Your task to perform on an android device: What are the best selling refrigerators at Lowes? Image 0: 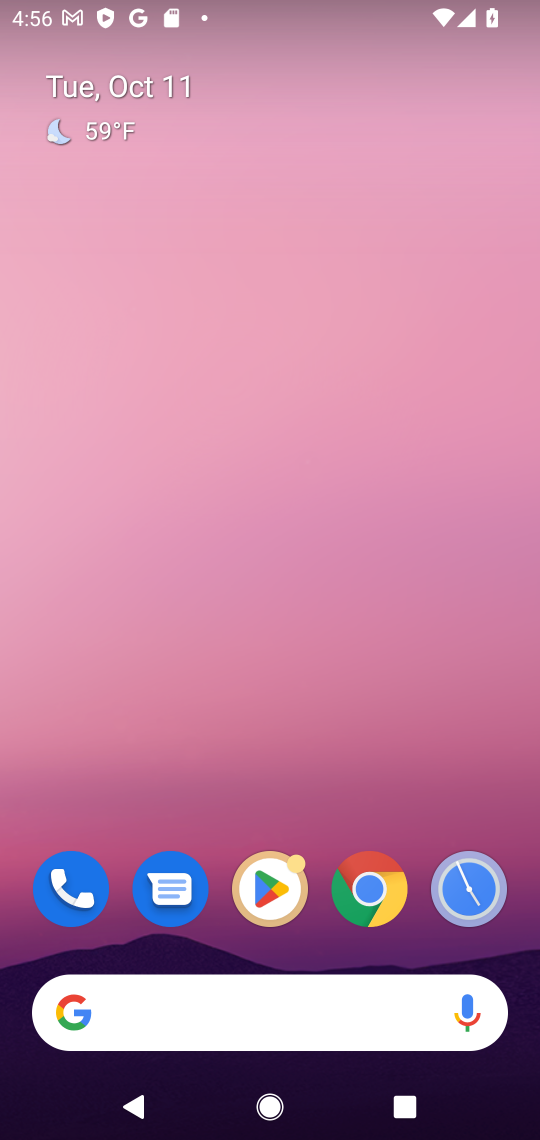
Step 0: drag from (226, 813) to (331, 202)
Your task to perform on an android device: What are the best selling refrigerators at Lowes? Image 1: 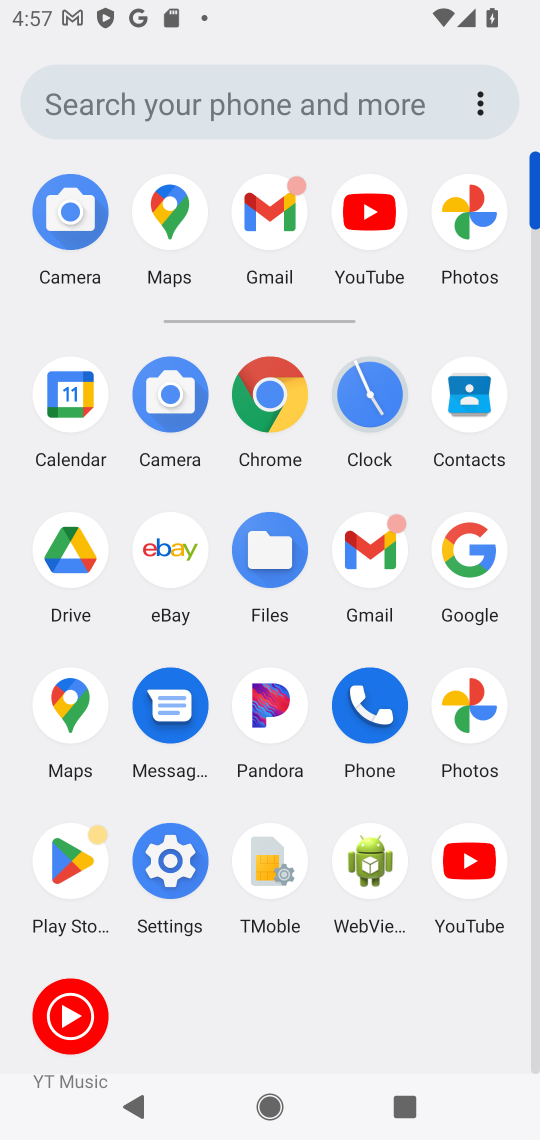
Step 1: click (479, 559)
Your task to perform on an android device: What are the best selling refrigerators at Lowes? Image 2: 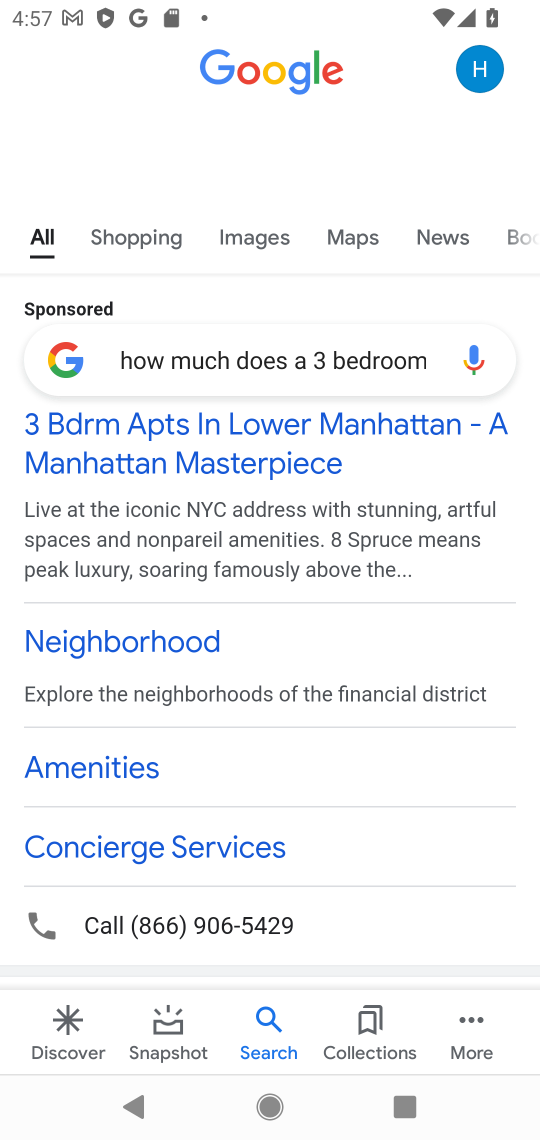
Step 2: click (334, 352)
Your task to perform on an android device: What are the best selling refrigerators at Lowes? Image 3: 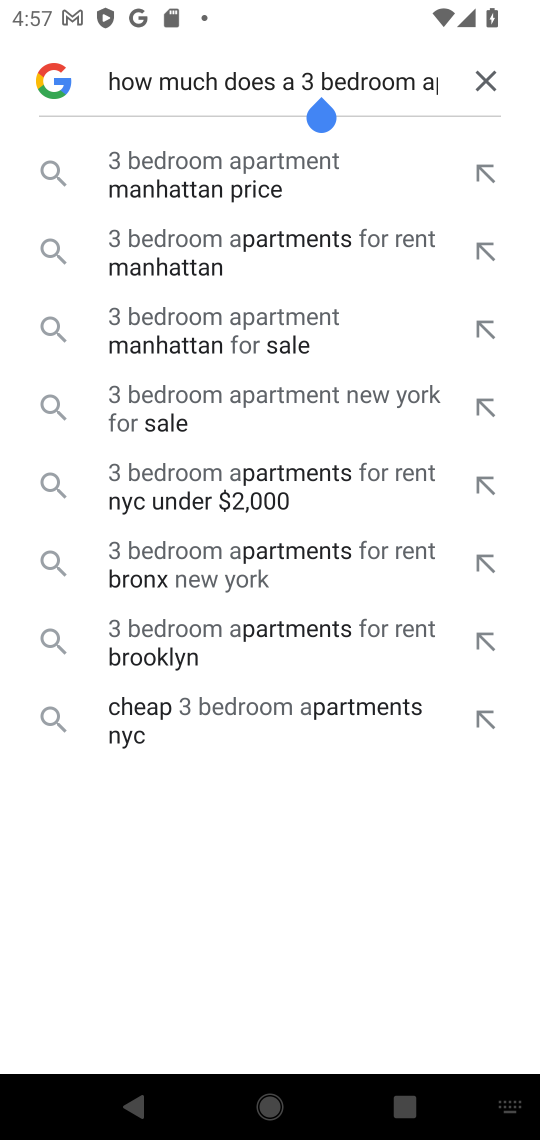
Step 3: click (493, 69)
Your task to perform on an android device: What are the best selling refrigerators at Lowes? Image 4: 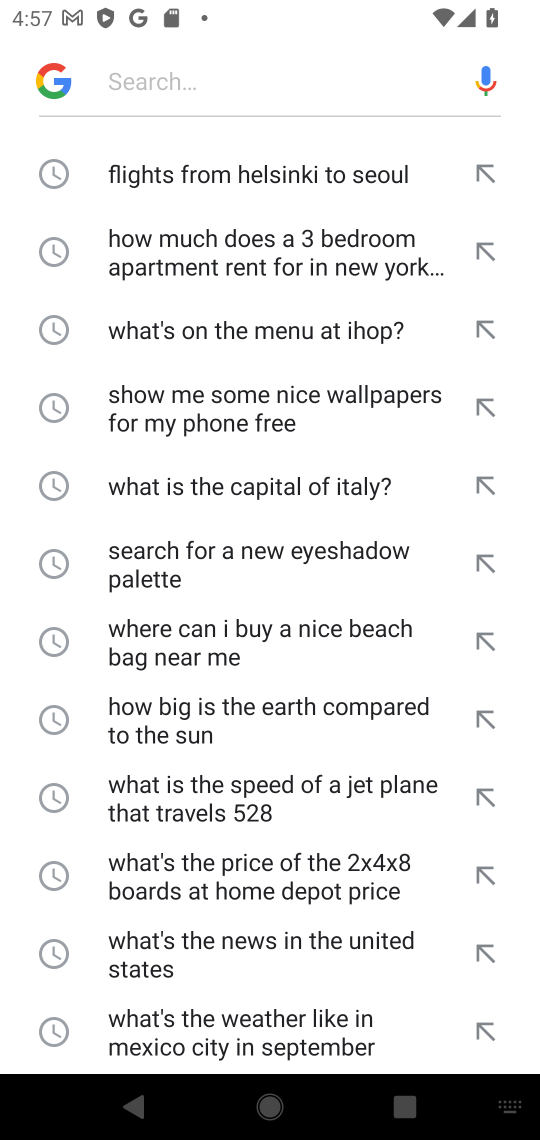
Step 4: click (263, 56)
Your task to perform on an android device: What are the best selling refrigerators at Lowes? Image 5: 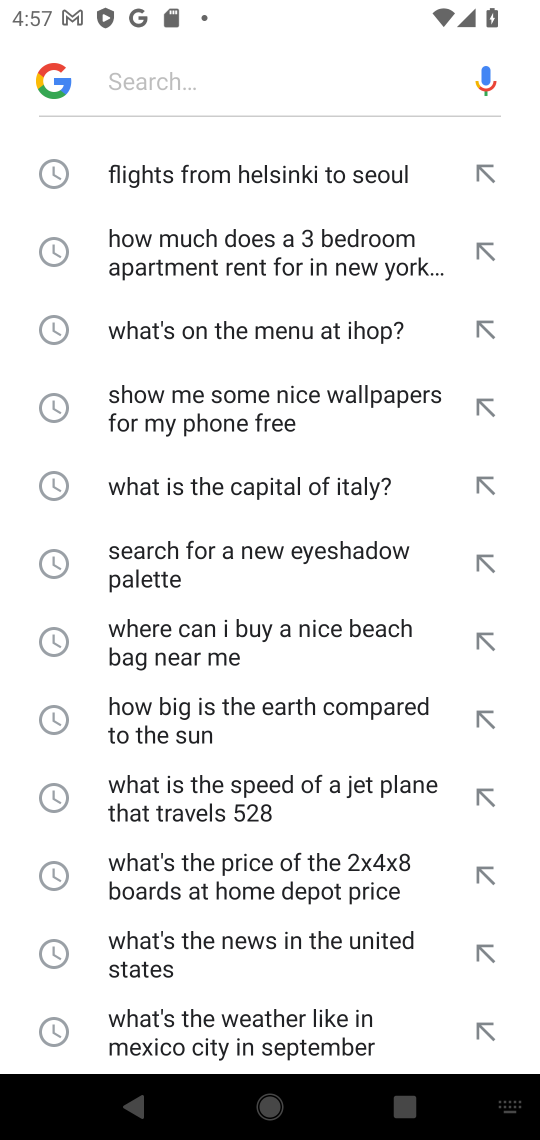
Step 5: type "What are the best selling refrigerators at Lowes "
Your task to perform on an android device: What are the best selling refrigerators at Lowes? Image 6: 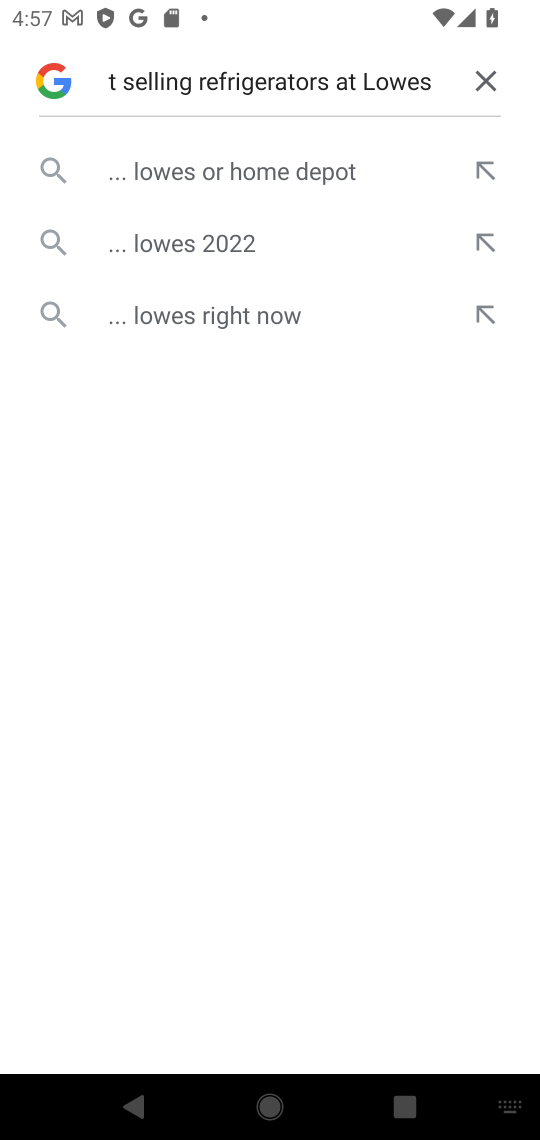
Step 6: click (230, 169)
Your task to perform on an android device: What are the best selling refrigerators at Lowes? Image 7: 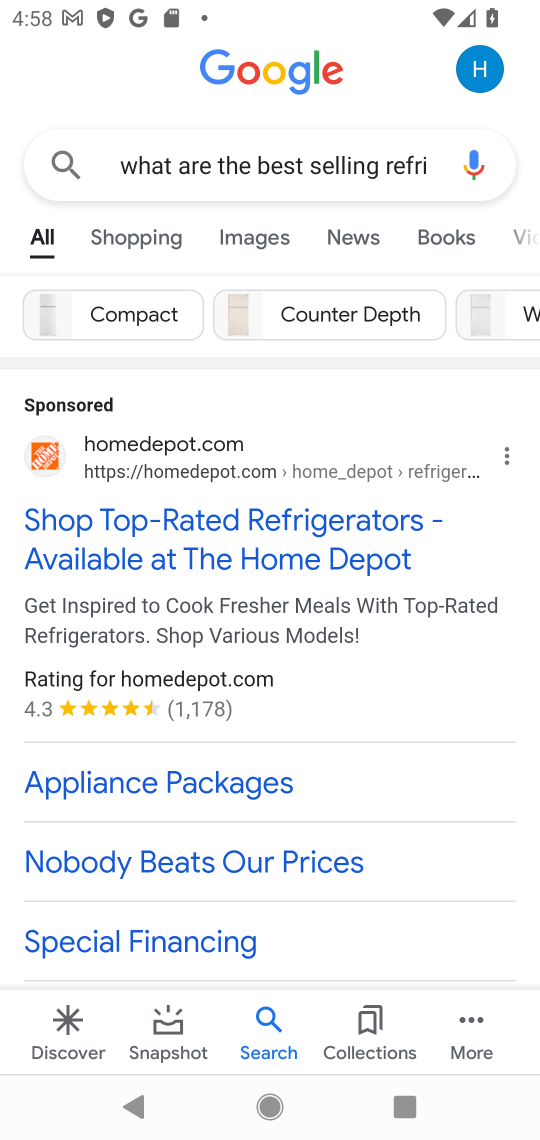
Step 7: drag from (234, 899) to (339, 380)
Your task to perform on an android device: What are the best selling refrigerators at Lowes? Image 8: 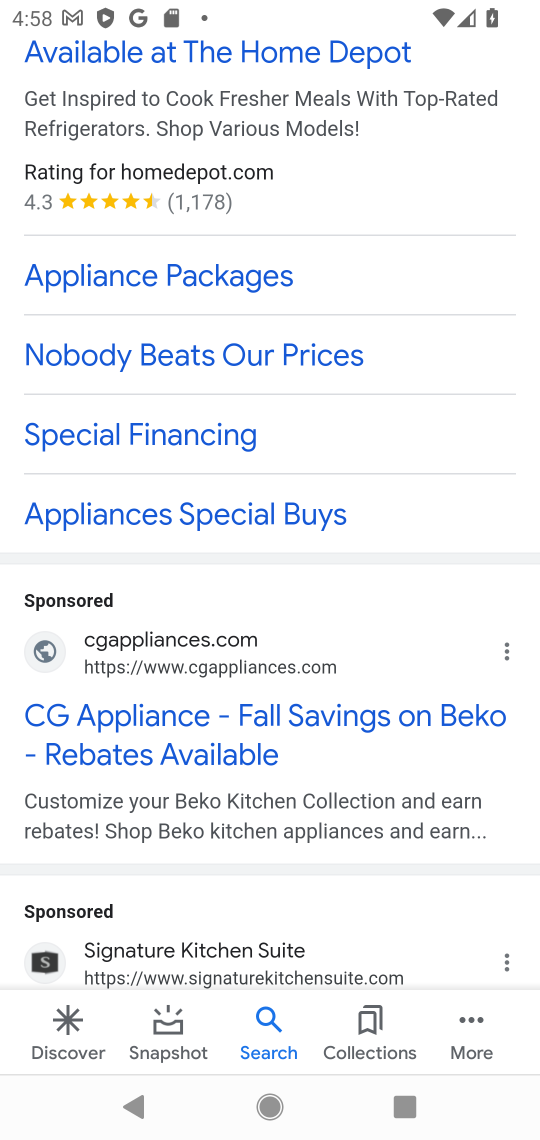
Step 8: drag from (242, 108) to (242, 786)
Your task to perform on an android device: What are the best selling refrigerators at Lowes? Image 9: 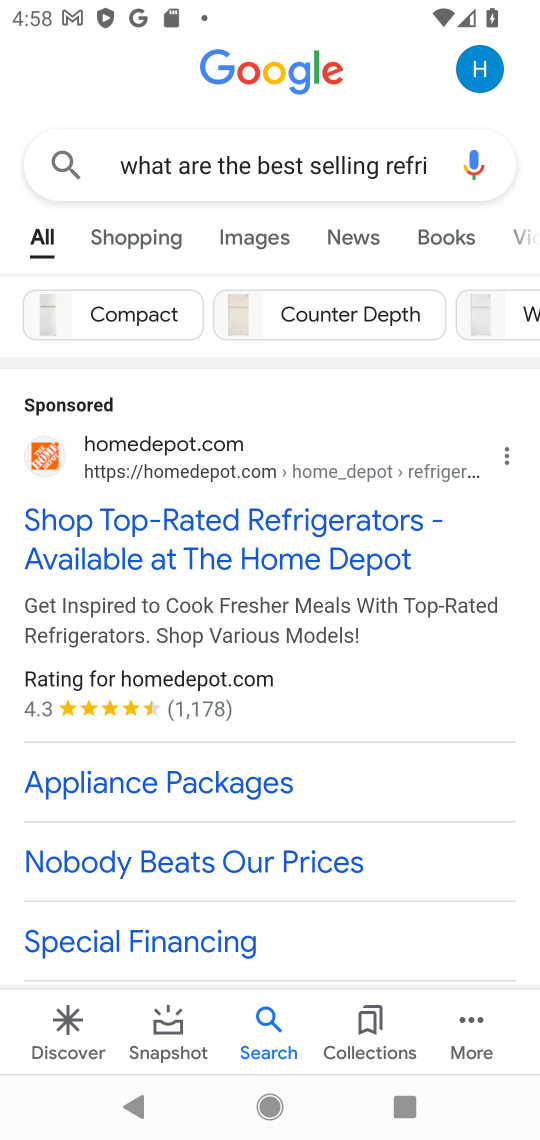
Step 9: click (191, 517)
Your task to perform on an android device: What are the best selling refrigerators at Lowes? Image 10: 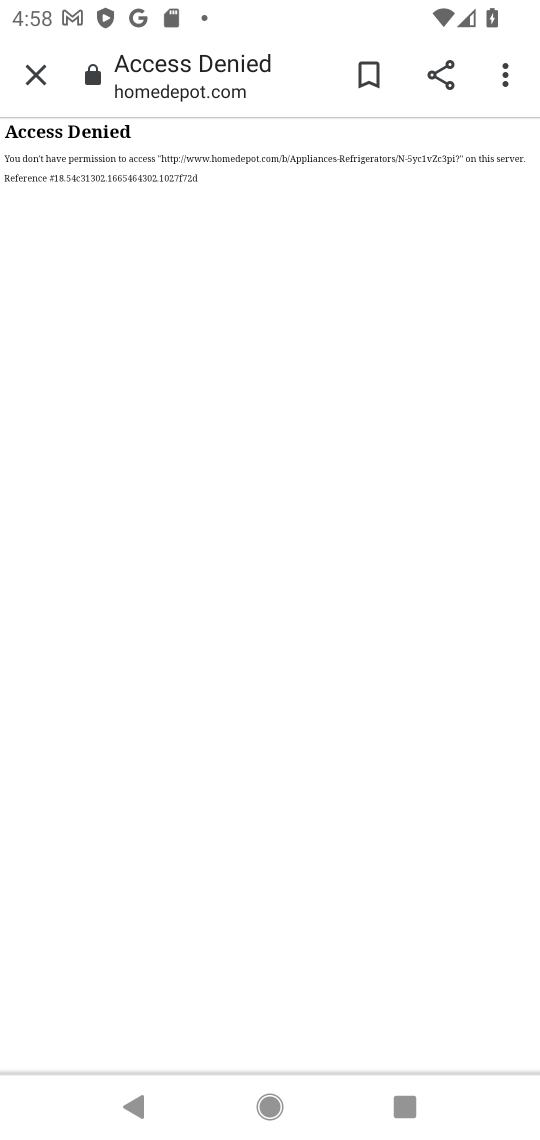
Step 10: click (42, 73)
Your task to perform on an android device: What are the best selling refrigerators at Lowes? Image 11: 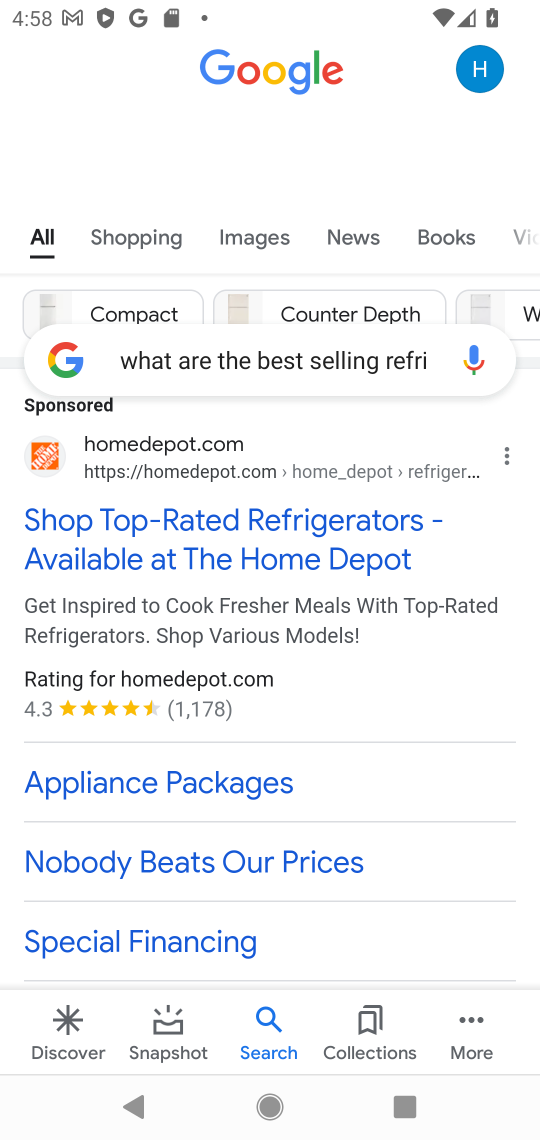
Step 11: drag from (255, 878) to (311, 481)
Your task to perform on an android device: What are the best selling refrigerators at Lowes? Image 12: 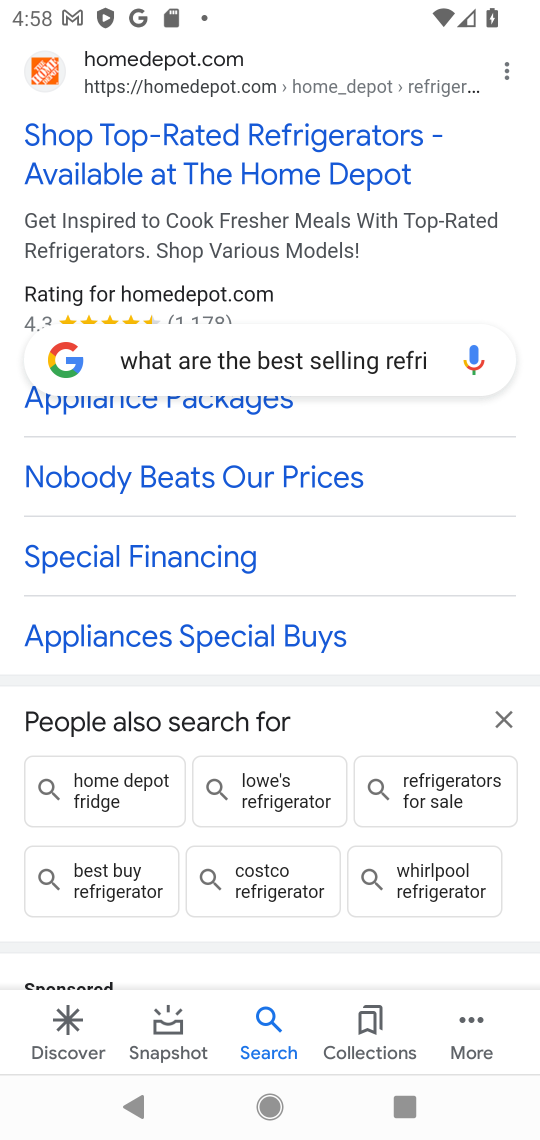
Step 12: drag from (242, 820) to (299, 384)
Your task to perform on an android device: What are the best selling refrigerators at Lowes? Image 13: 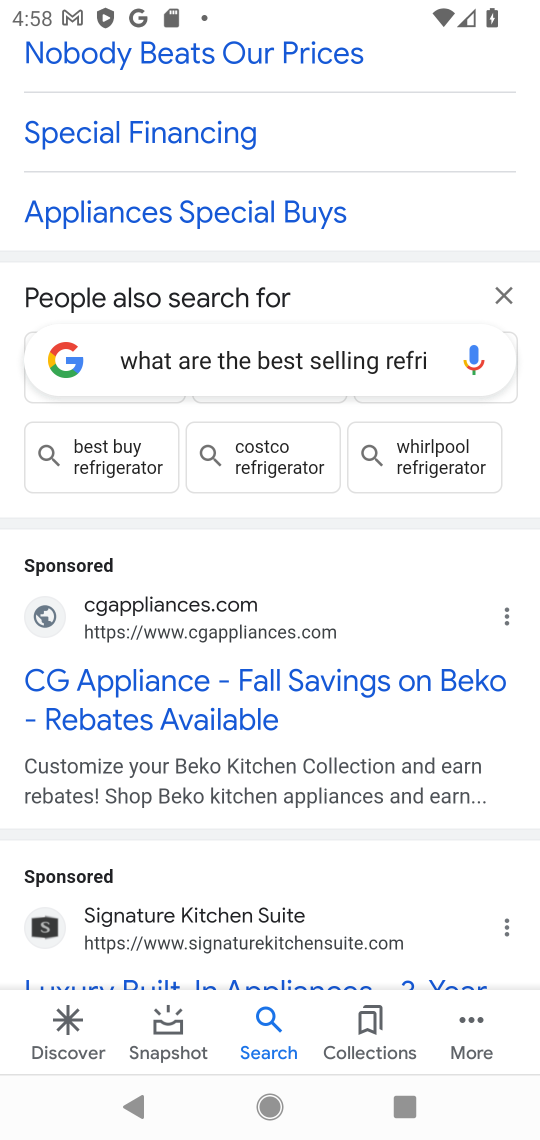
Step 13: click (174, 681)
Your task to perform on an android device: What are the best selling refrigerators at Lowes? Image 14: 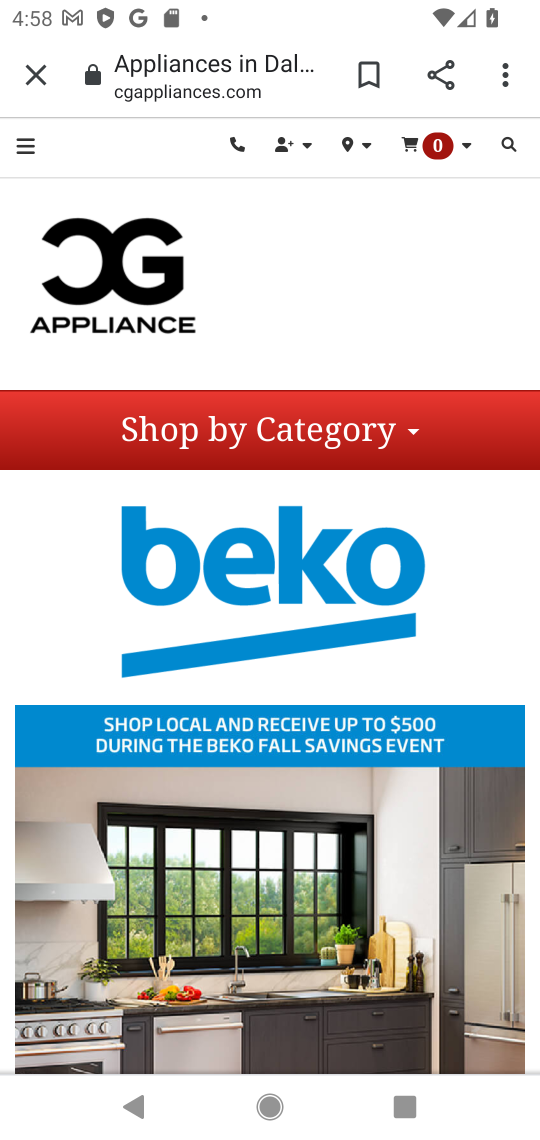
Step 14: task complete